Your task to perform on an android device: uninstall "Life360: Find Family & Friends" Image 0: 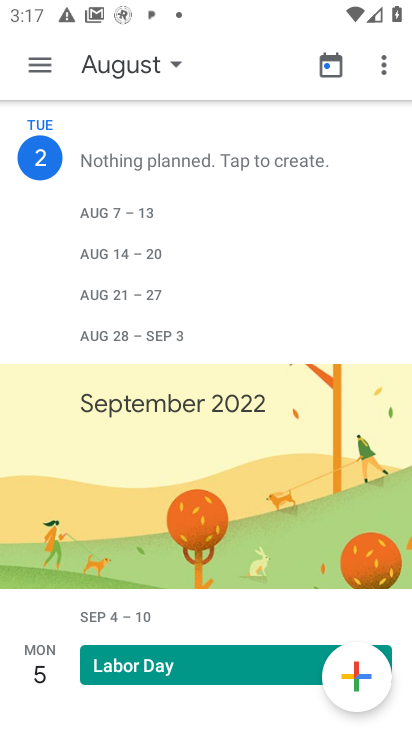
Step 0: press home button
Your task to perform on an android device: uninstall "Life360: Find Family & Friends" Image 1: 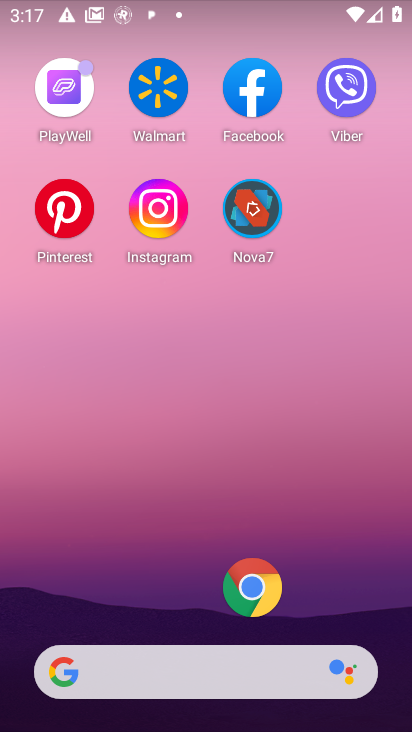
Step 1: drag from (151, 613) to (194, 308)
Your task to perform on an android device: uninstall "Life360: Find Family & Friends" Image 2: 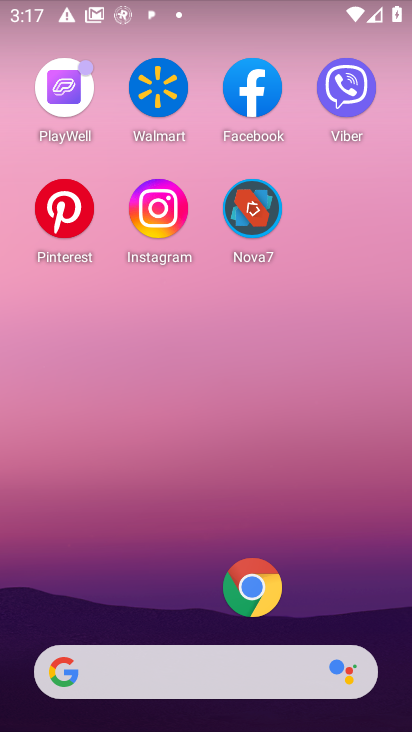
Step 2: drag from (151, 586) to (193, 326)
Your task to perform on an android device: uninstall "Life360: Find Family & Friends" Image 3: 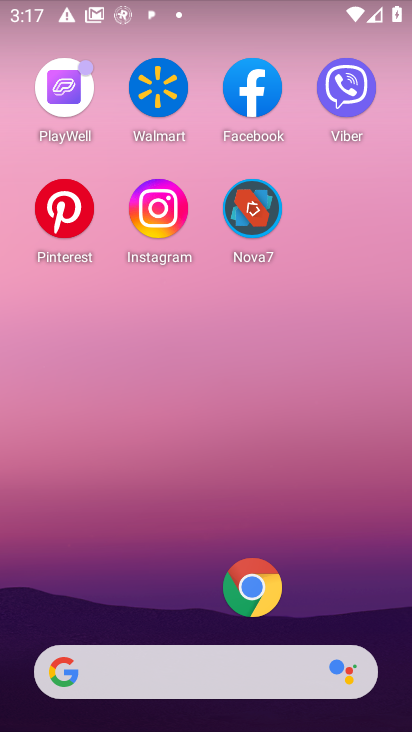
Step 3: drag from (174, 596) to (178, 229)
Your task to perform on an android device: uninstall "Life360: Find Family & Friends" Image 4: 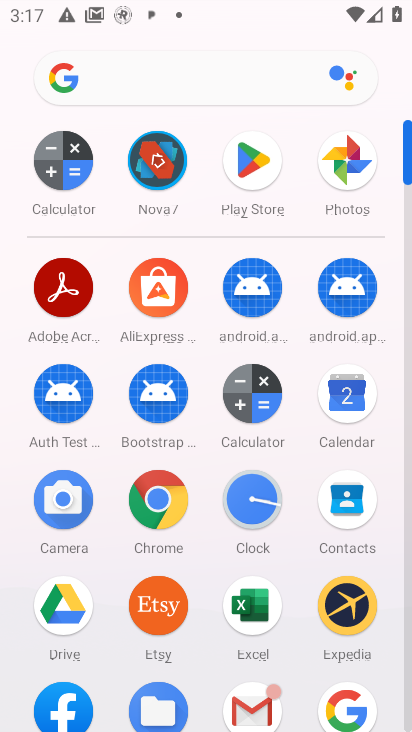
Step 4: click (236, 188)
Your task to perform on an android device: uninstall "Life360: Find Family & Friends" Image 5: 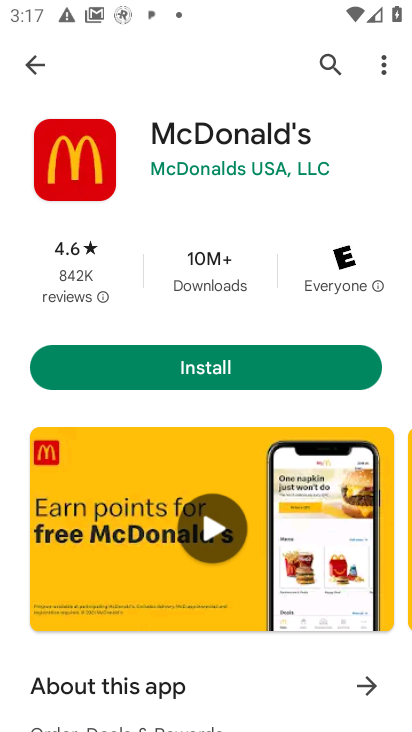
Step 5: click (315, 57)
Your task to perform on an android device: uninstall "Life360: Find Family & Friends" Image 6: 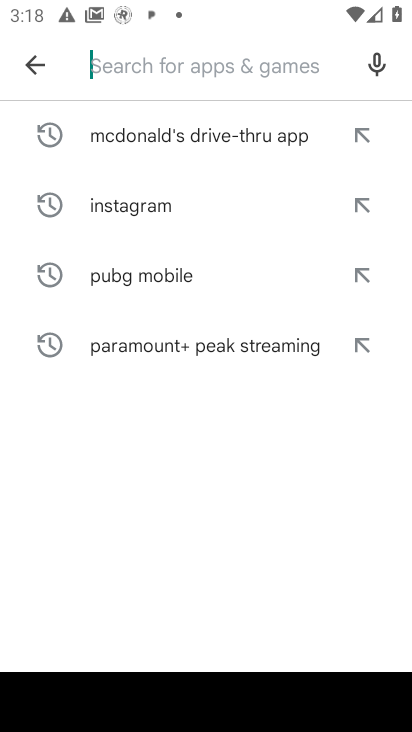
Step 6: type "Life360: Find Family & Friends"
Your task to perform on an android device: uninstall "Life360: Find Family & Friends" Image 7: 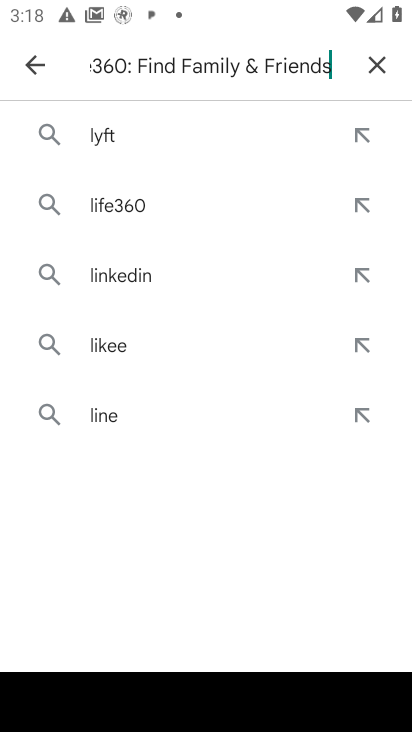
Step 7: type ""
Your task to perform on an android device: uninstall "Life360: Find Family & Friends" Image 8: 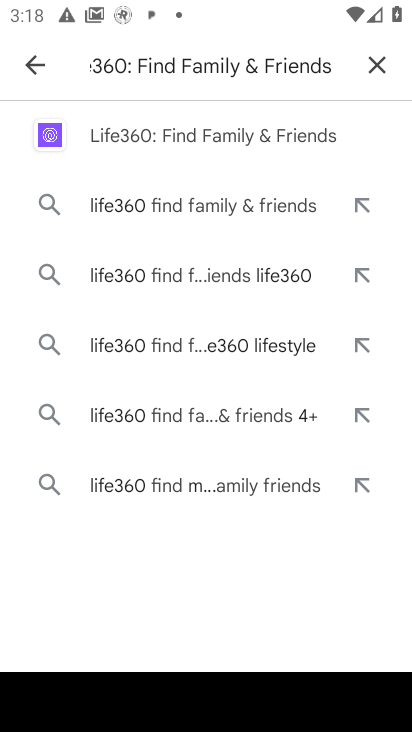
Step 8: click (315, 122)
Your task to perform on an android device: uninstall "Life360: Find Family & Friends" Image 9: 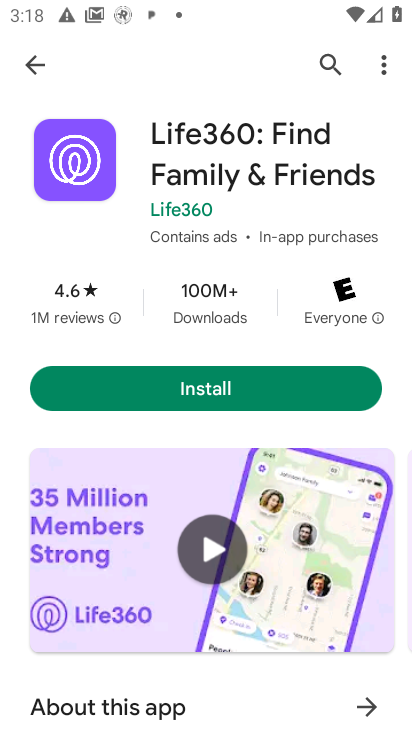
Step 9: task complete